Your task to perform on an android device: check data usage Image 0: 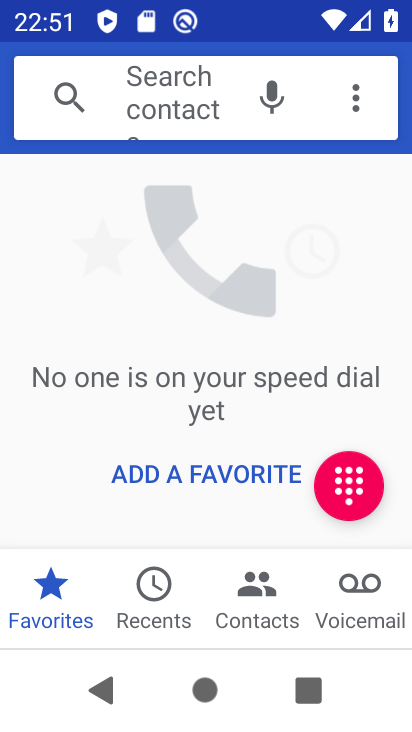
Step 0: press home button
Your task to perform on an android device: check data usage Image 1: 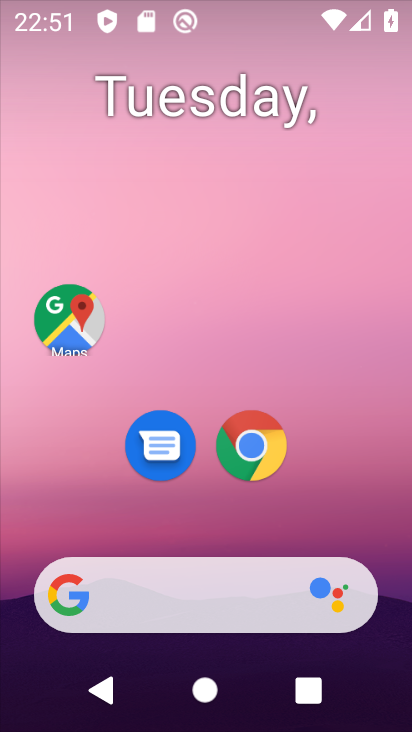
Step 1: drag from (191, 514) to (225, 36)
Your task to perform on an android device: check data usage Image 2: 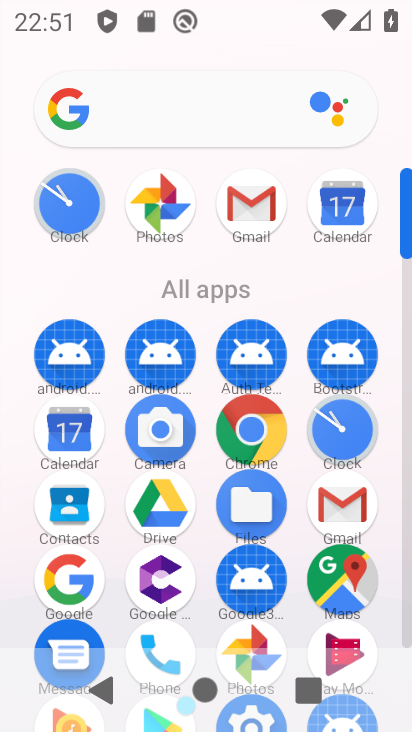
Step 2: drag from (185, 516) to (246, 182)
Your task to perform on an android device: check data usage Image 3: 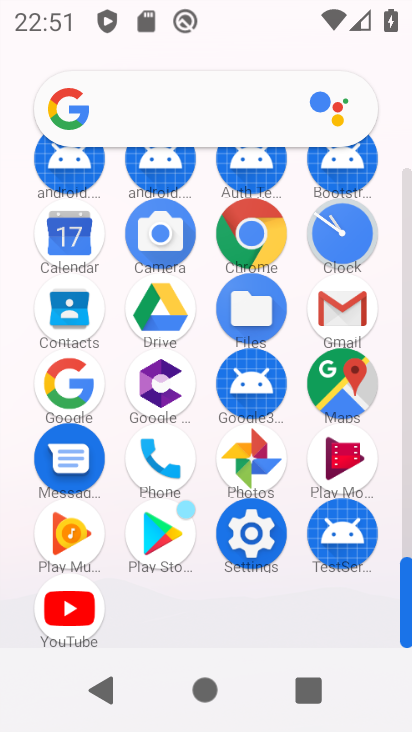
Step 3: click (230, 545)
Your task to perform on an android device: check data usage Image 4: 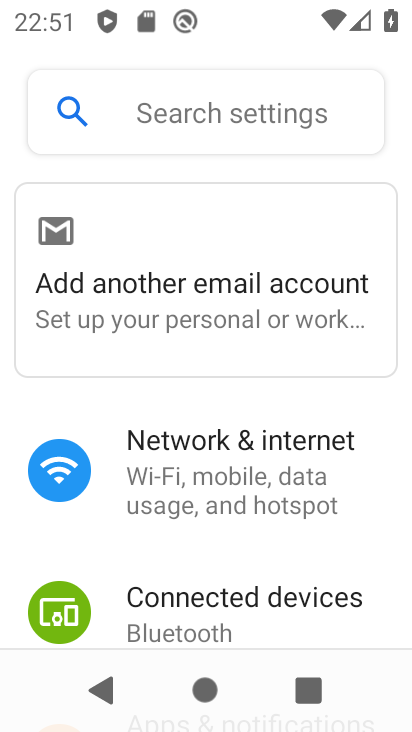
Step 4: click (236, 499)
Your task to perform on an android device: check data usage Image 5: 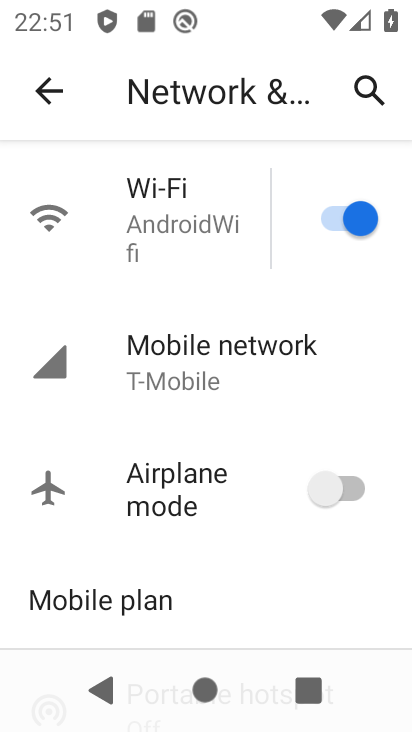
Step 5: click (241, 327)
Your task to perform on an android device: check data usage Image 6: 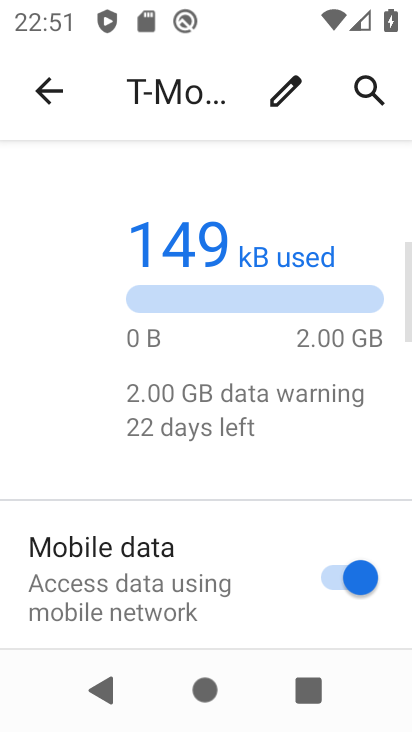
Step 6: drag from (168, 571) to (221, 192)
Your task to perform on an android device: check data usage Image 7: 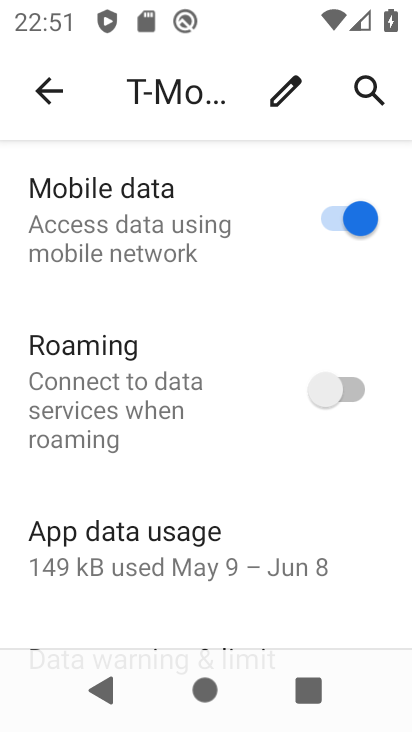
Step 7: click (213, 542)
Your task to perform on an android device: check data usage Image 8: 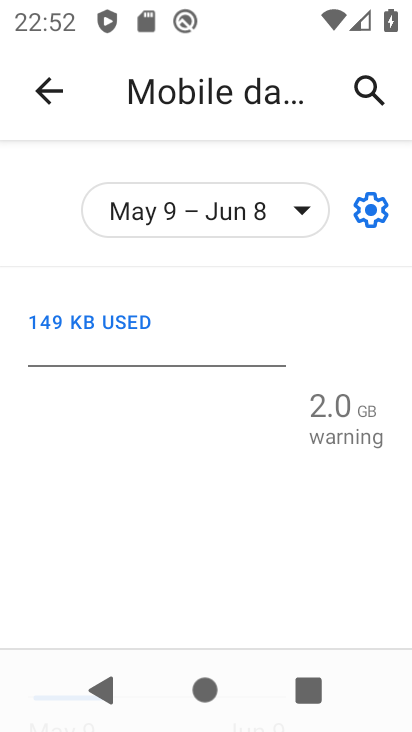
Step 8: task complete